Your task to perform on an android device: Find coffee shops on Maps Image 0: 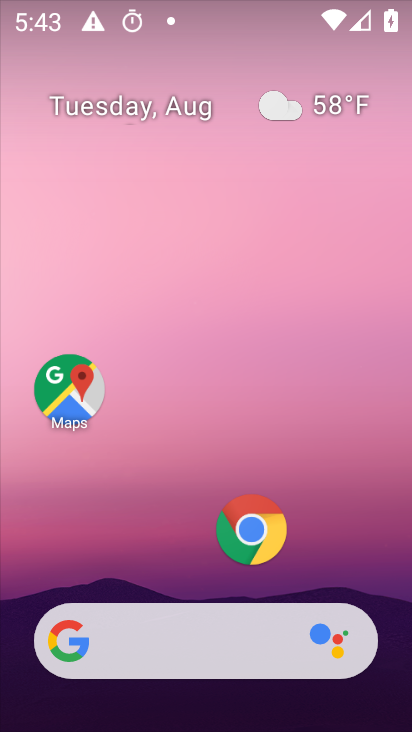
Step 0: click (96, 411)
Your task to perform on an android device: Find coffee shops on Maps Image 1: 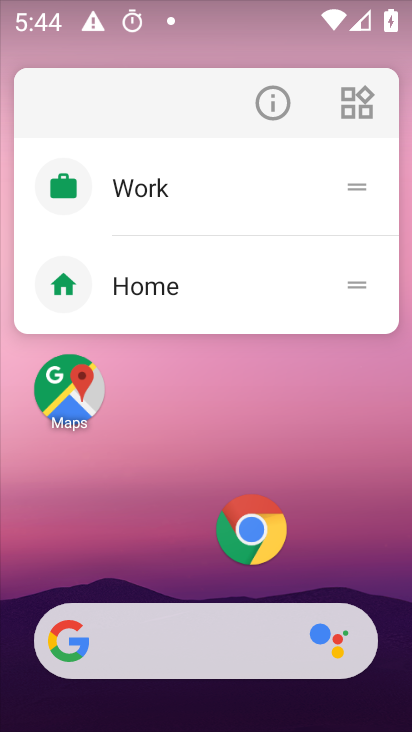
Step 1: click (86, 417)
Your task to perform on an android device: Find coffee shops on Maps Image 2: 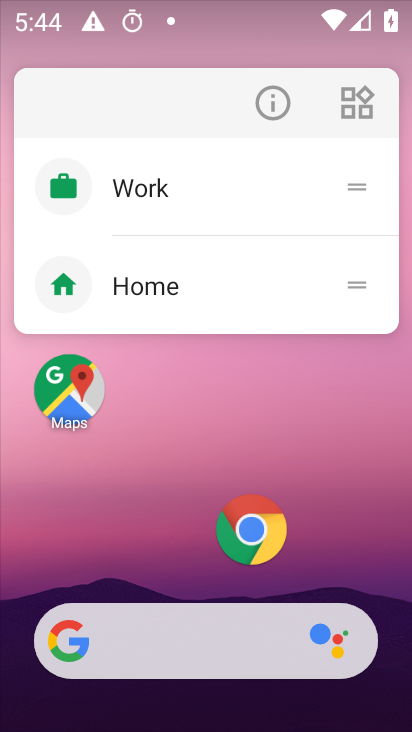
Step 2: click (86, 417)
Your task to perform on an android device: Find coffee shops on Maps Image 3: 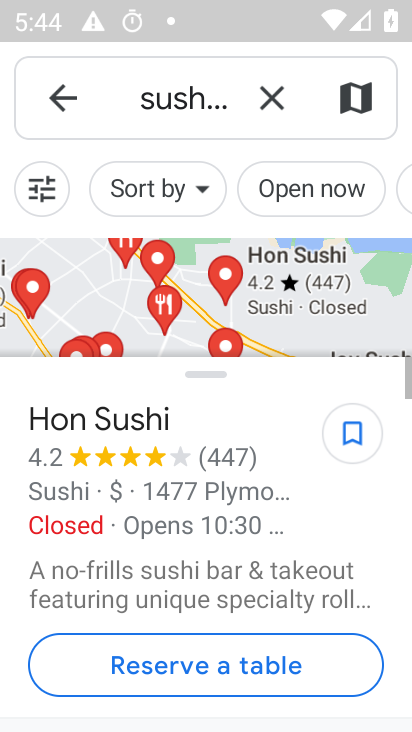
Step 3: click (279, 100)
Your task to perform on an android device: Find coffee shops on Maps Image 4: 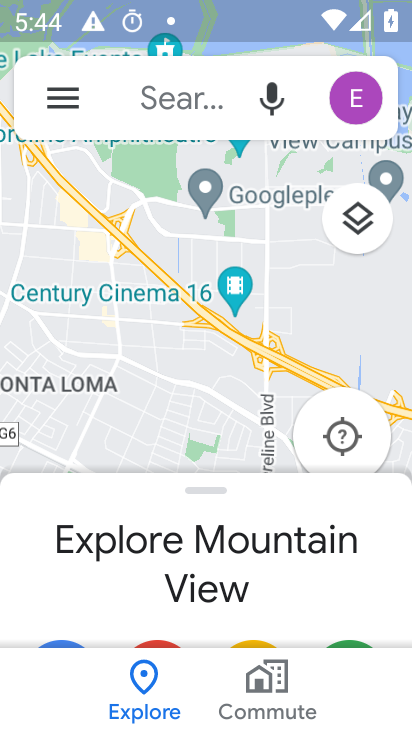
Step 4: click (162, 94)
Your task to perform on an android device: Find coffee shops on Maps Image 5: 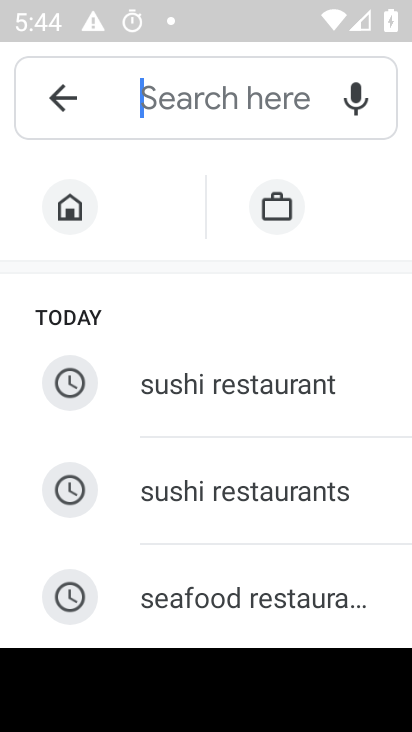
Step 5: type "coffee shops"
Your task to perform on an android device: Find coffee shops on Maps Image 6: 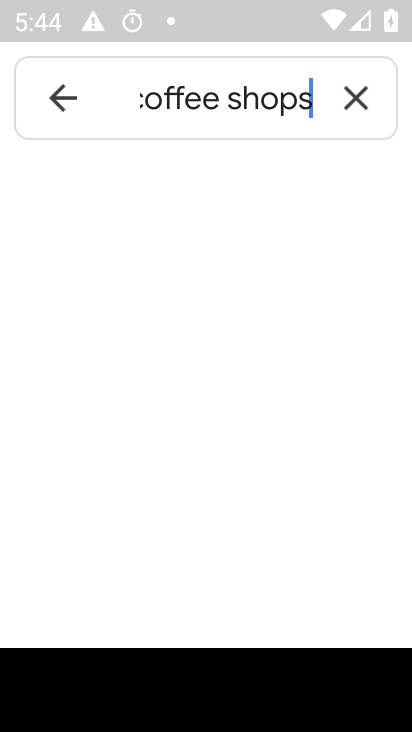
Step 6: type ""
Your task to perform on an android device: Find coffee shops on Maps Image 7: 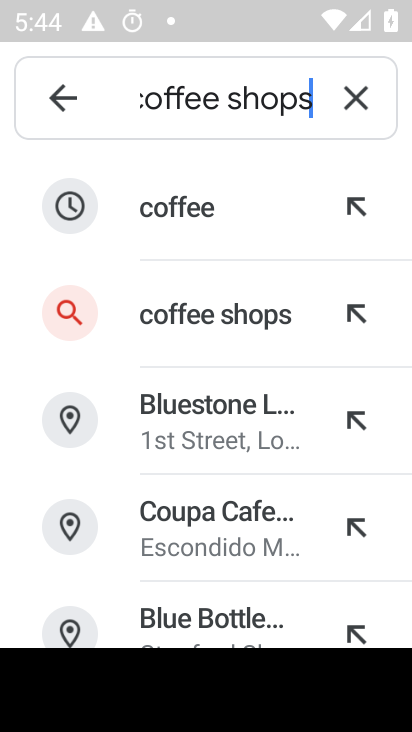
Step 7: click (210, 306)
Your task to perform on an android device: Find coffee shops on Maps Image 8: 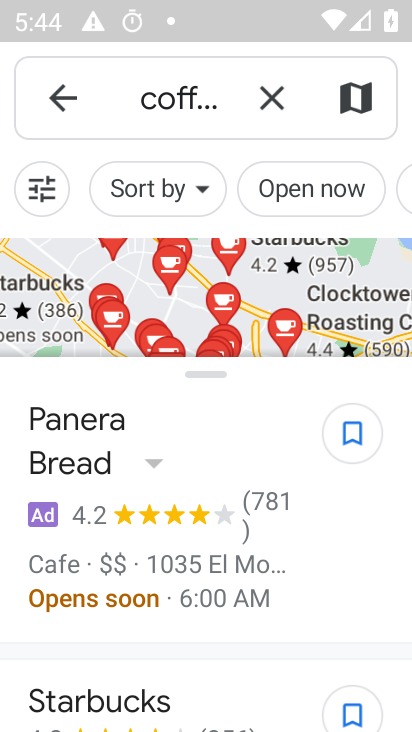
Step 8: task complete